Your task to perform on an android device: change the clock display to analog Image 0: 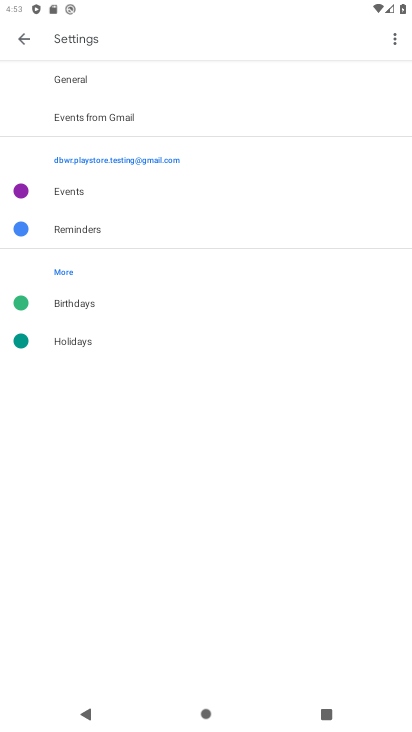
Step 0: press home button
Your task to perform on an android device: change the clock display to analog Image 1: 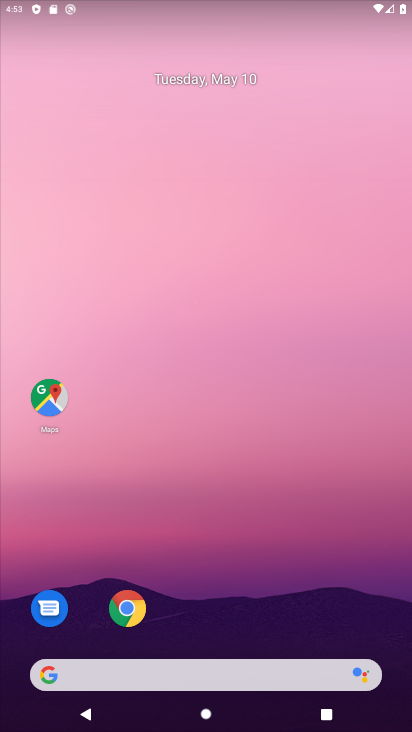
Step 1: drag from (209, 642) to (260, 6)
Your task to perform on an android device: change the clock display to analog Image 2: 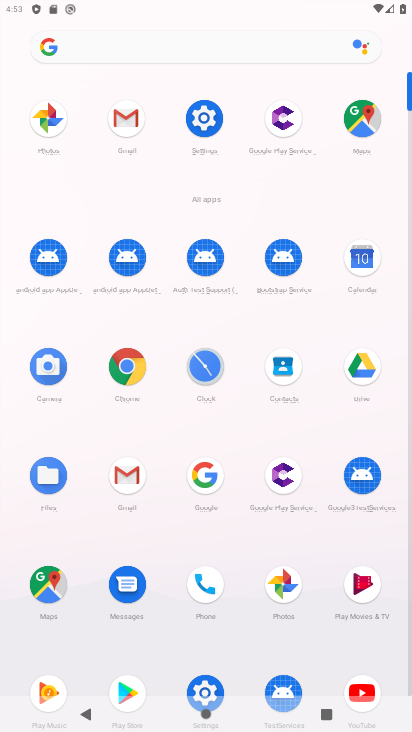
Step 2: click (213, 390)
Your task to perform on an android device: change the clock display to analog Image 3: 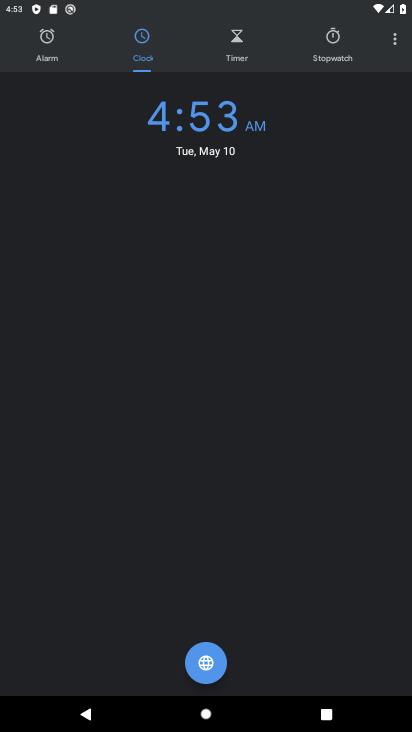
Step 3: click (400, 49)
Your task to perform on an android device: change the clock display to analog Image 4: 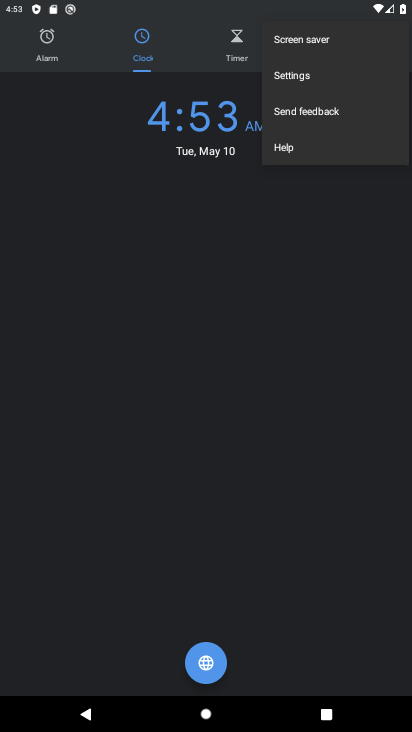
Step 4: click (306, 83)
Your task to perform on an android device: change the clock display to analog Image 5: 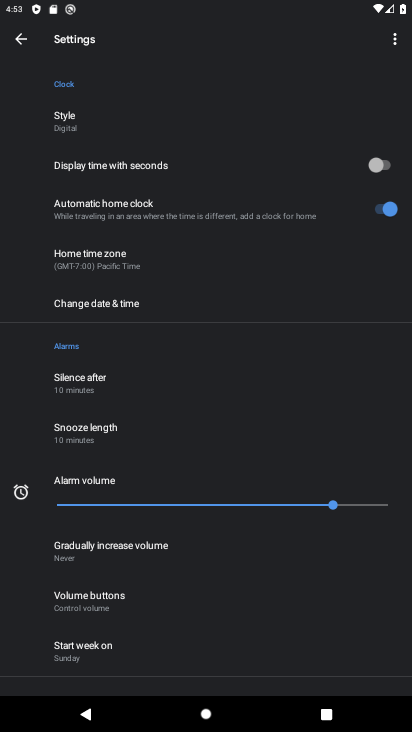
Step 5: click (103, 125)
Your task to perform on an android device: change the clock display to analog Image 6: 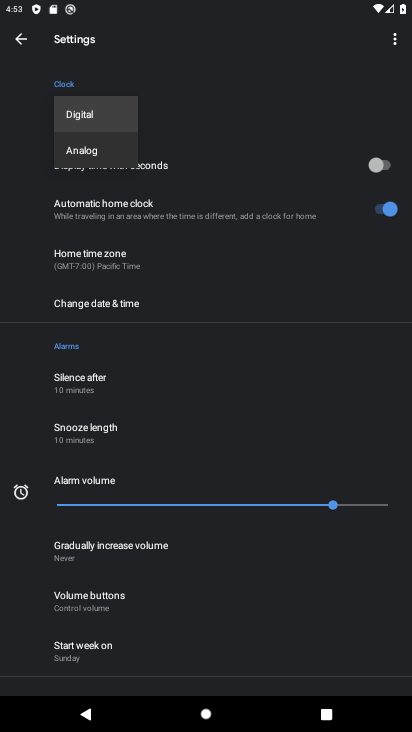
Step 6: click (91, 157)
Your task to perform on an android device: change the clock display to analog Image 7: 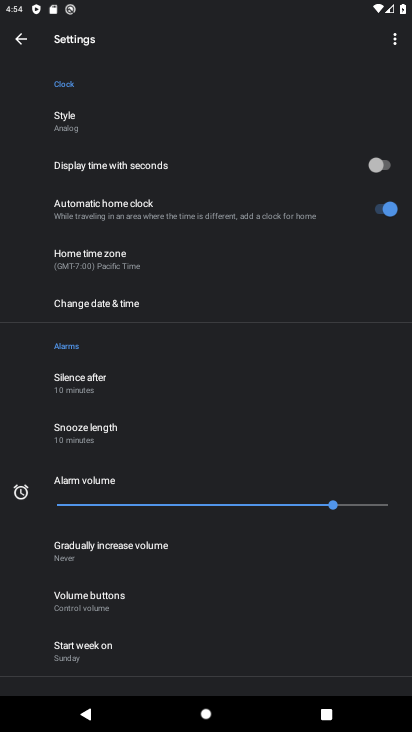
Step 7: task complete